Your task to perform on an android device: toggle show notifications on the lock screen Image 0: 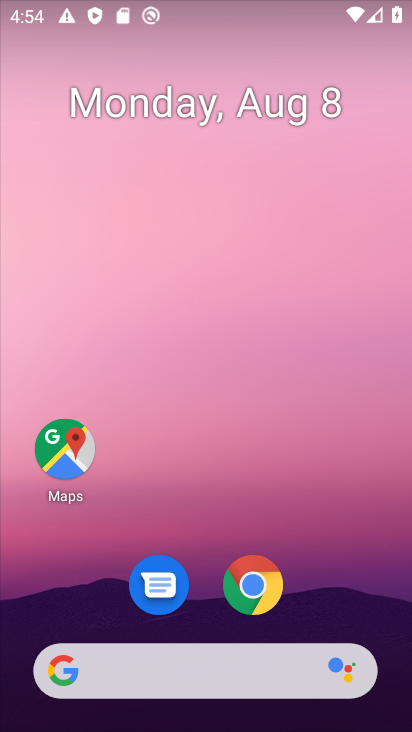
Step 0: drag from (229, 512) to (235, 7)
Your task to perform on an android device: toggle show notifications on the lock screen Image 1: 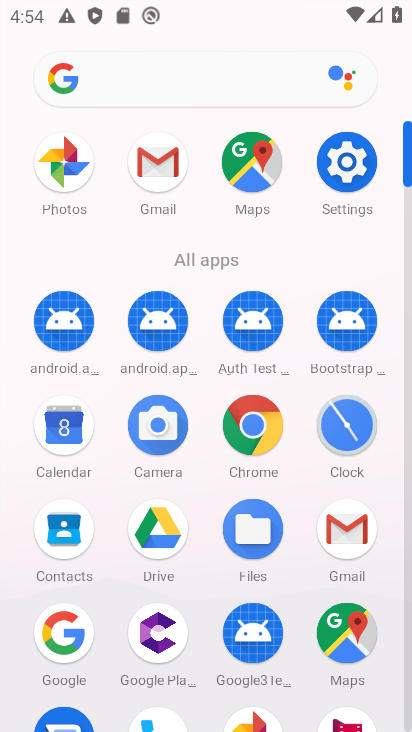
Step 1: click (346, 153)
Your task to perform on an android device: toggle show notifications on the lock screen Image 2: 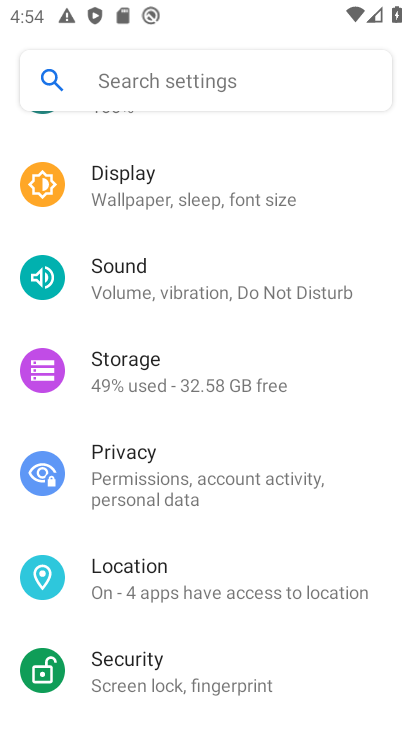
Step 2: drag from (285, 246) to (269, 402)
Your task to perform on an android device: toggle show notifications on the lock screen Image 3: 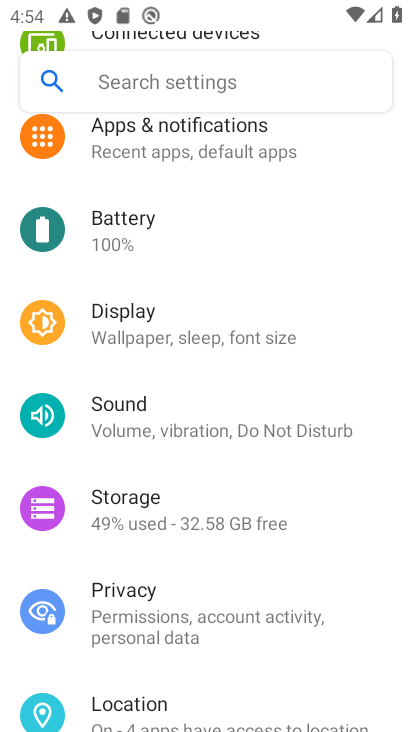
Step 3: drag from (281, 236) to (284, 404)
Your task to perform on an android device: toggle show notifications on the lock screen Image 4: 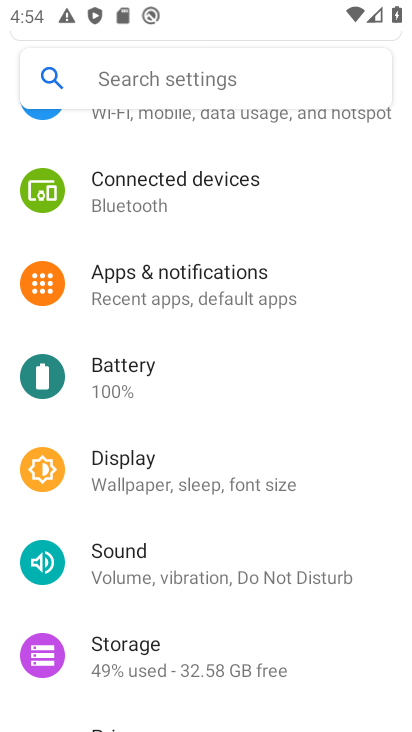
Step 4: drag from (288, 209) to (282, 457)
Your task to perform on an android device: toggle show notifications on the lock screen Image 5: 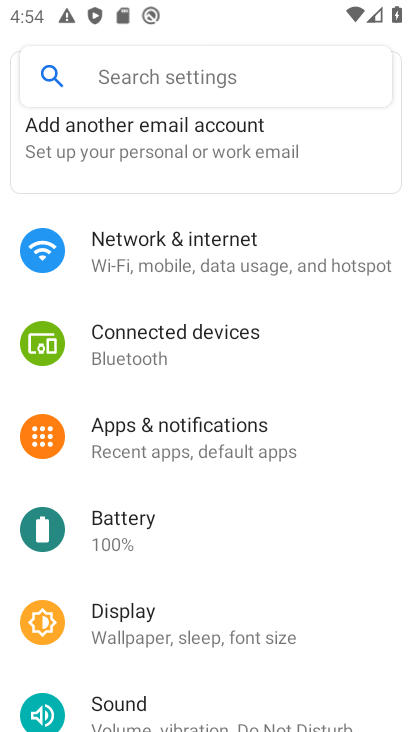
Step 5: click (245, 449)
Your task to perform on an android device: toggle show notifications on the lock screen Image 6: 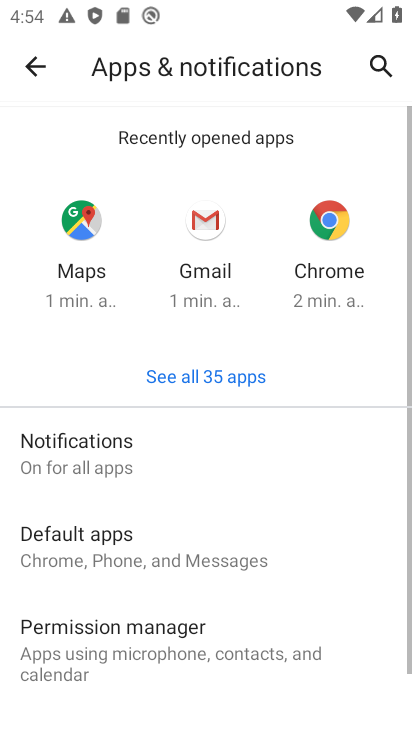
Step 6: click (90, 447)
Your task to perform on an android device: toggle show notifications on the lock screen Image 7: 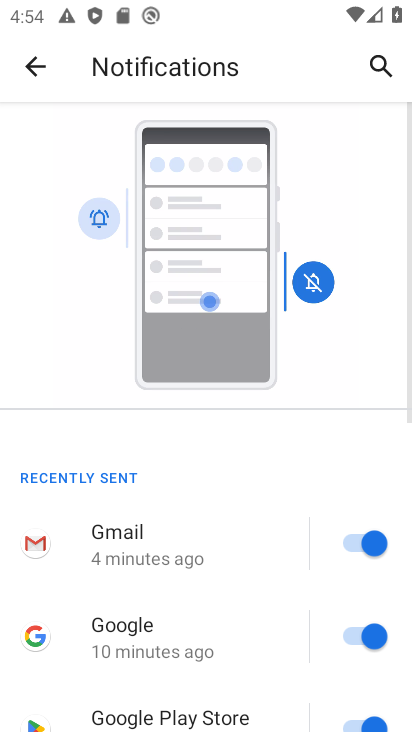
Step 7: drag from (253, 608) to (286, 125)
Your task to perform on an android device: toggle show notifications on the lock screen Image 8: 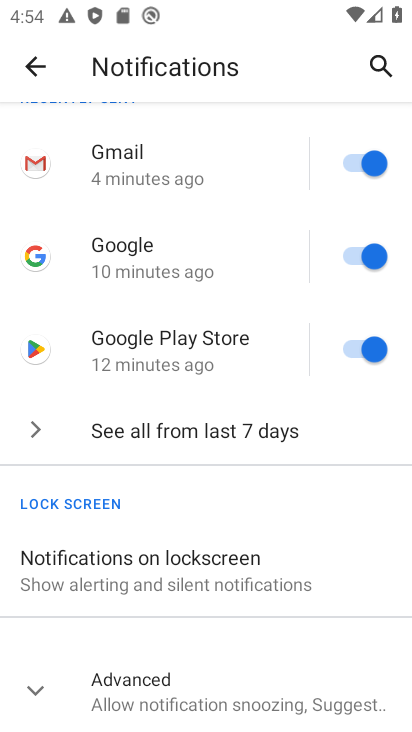
Step 8: click (215, 555)
Your task to perform on an android device: toggle show notifications on the lock screen Image 9: 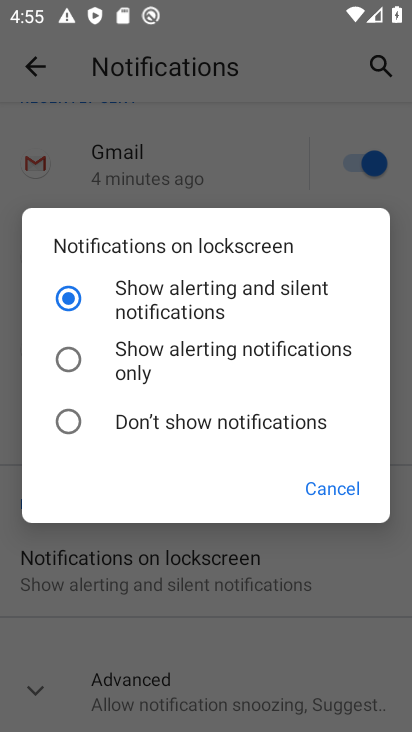
Step 9: click (70, 422)
Your task to perform on an android device: toggle show notifications on the lock screen Image 10: 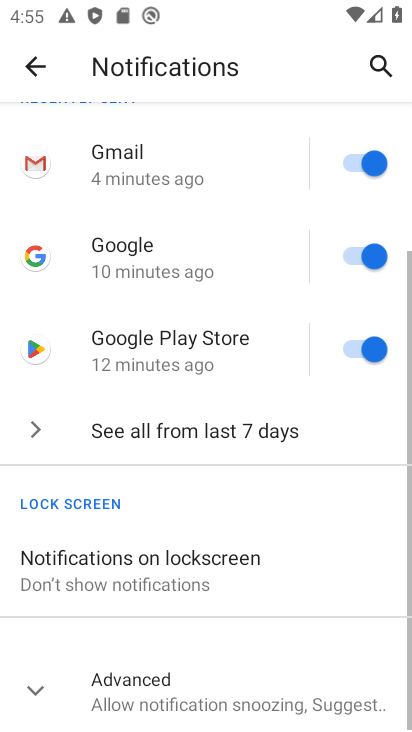
Step 10: task complete